Your task to perform on an android device: Clear the cart on walmart. Image 0: 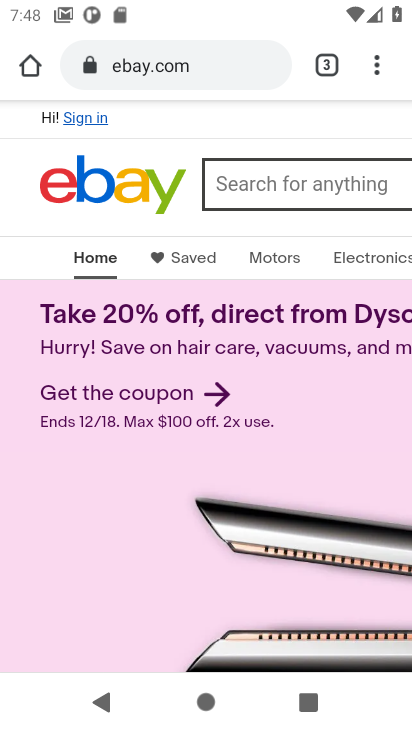
Step 0: click (161, 84)
Your task to perform on an android device: Clear the cart on walmart. Image 1: 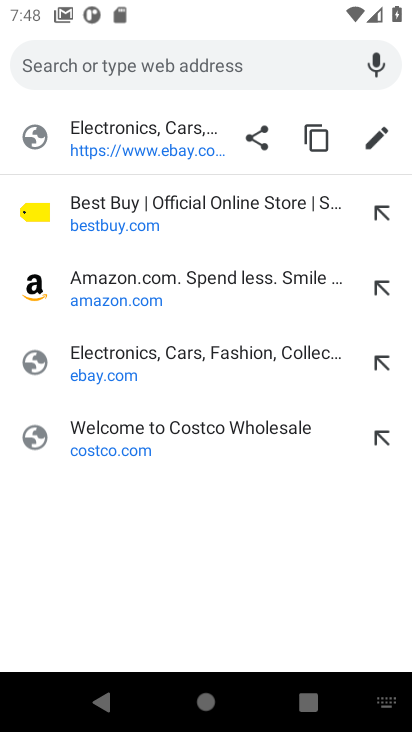
Step 1: type "walmart"
Your task to perform on an android device: Clear the cart on walmart. Image 2: 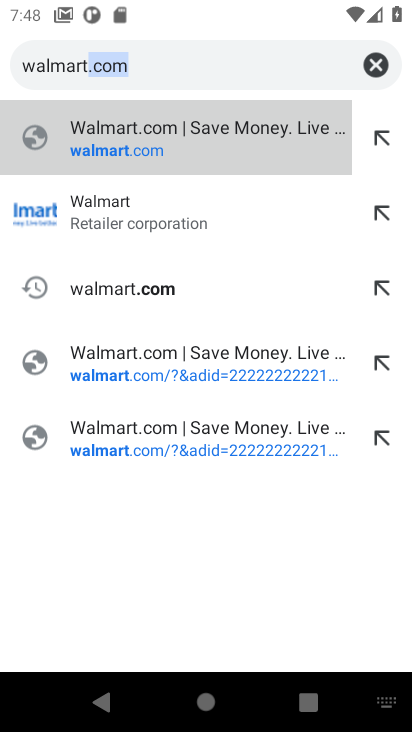
Step 2: click (130, 157)
Your task to perform on an android device: Clear the cart on walmart. Image 3: 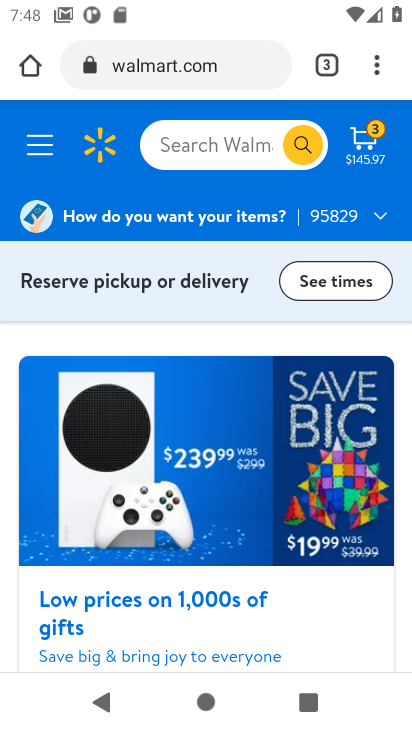
Step 3: click (194, 144)
Your task to perform on an android device: Clear the cart on walmart. Image 4: 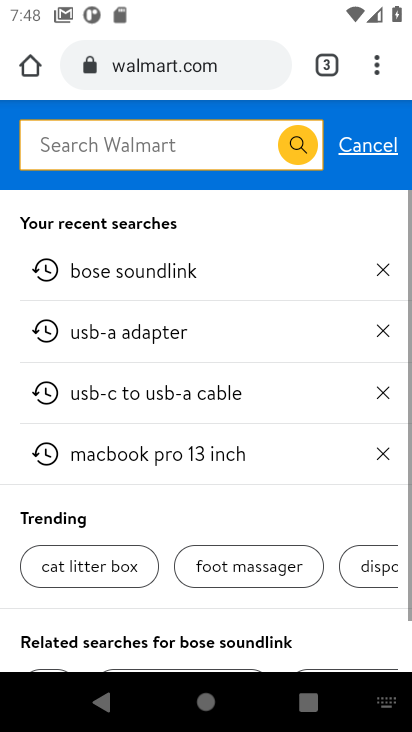
Step 4: click (367, 157)
Your task to perform on an android device: Clear the cart on walmart. Image 5: 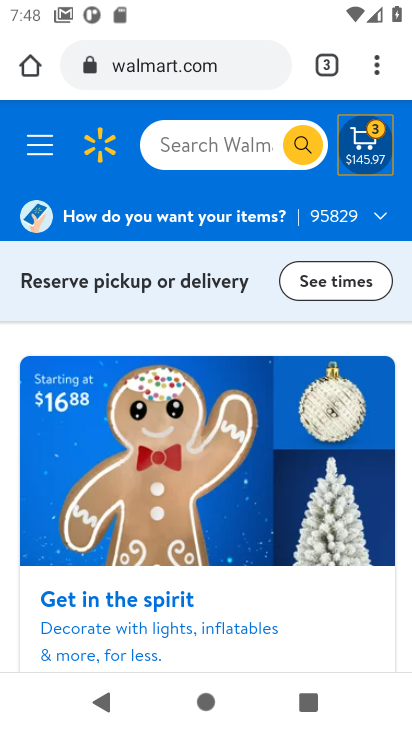
Step 5: click (365, 128)
Your task to perform on an android device: Clear the cart on walmart. Image 6: 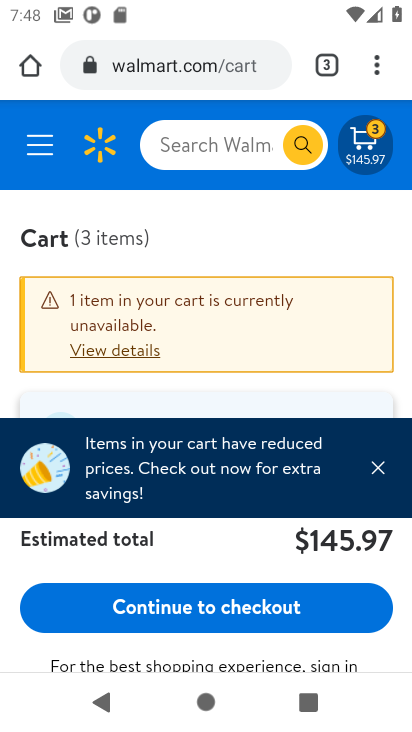
Step 6: click (372, 469)
Your task to perform on an android device: Clear the cart on walmart. Image 7: 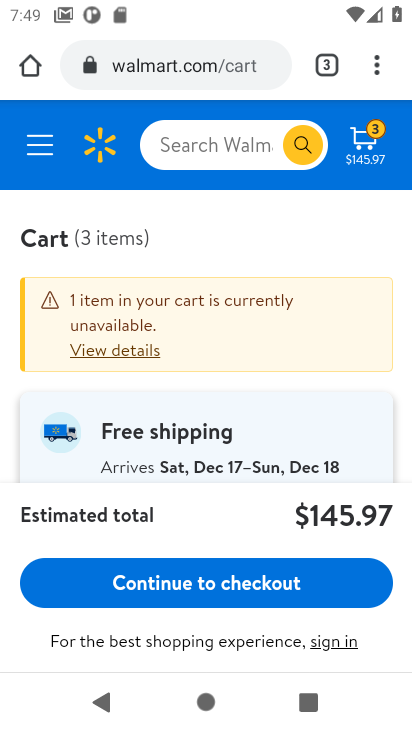
Step 7: drag from (174, 417) to (182, 207)
Your task to perform on an android device: Clear the cart on walmart. Image 8: 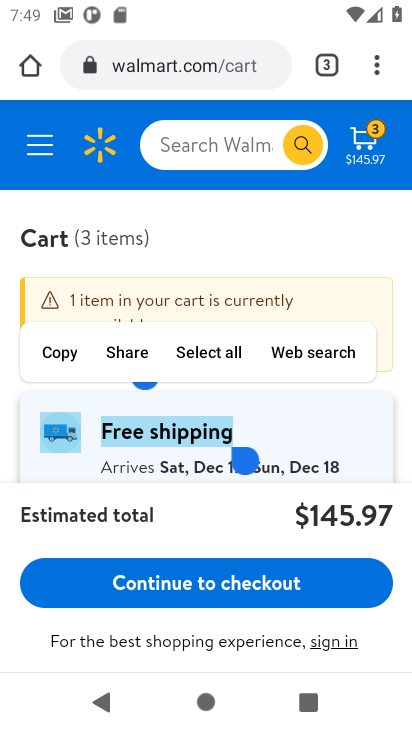
Step 8: click (364, 435)
Your task to perform on an android device: Clear the cart on walmart. Image 9: 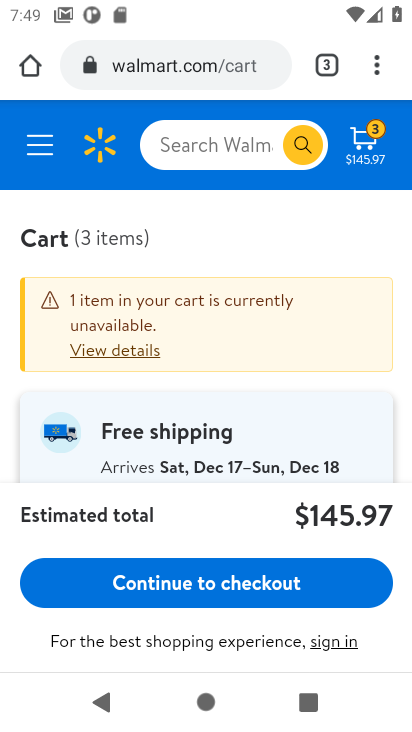
Step 9: drag from (386, 464) to (361, 252)
Your task to perform on an android device: Clear the cart on walmart. Image 10: 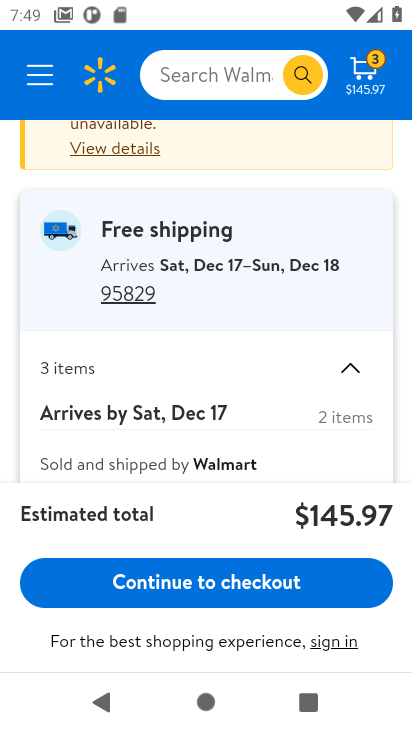
Step 10: drag from (277, 350) to (282, 242)
Your task to perform on an android device: Clear the cart on walmart. Image 11: 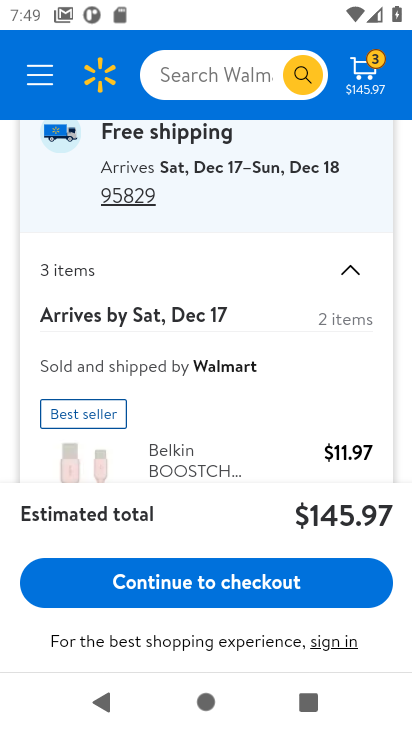
Step 11: drag from (235, 387) to (283, 143)
Your task to perform on an android device: Clear the cart on walmart. Image 12: 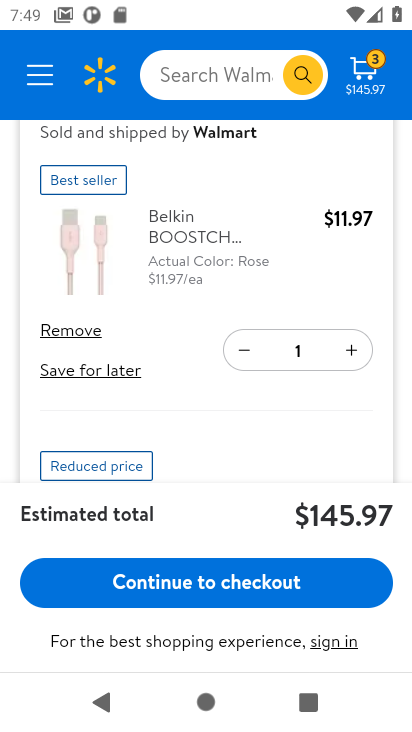
Step 12: click (71, 331)
Your task to perform on an android device: Clear the cart on walmart. Image 13: 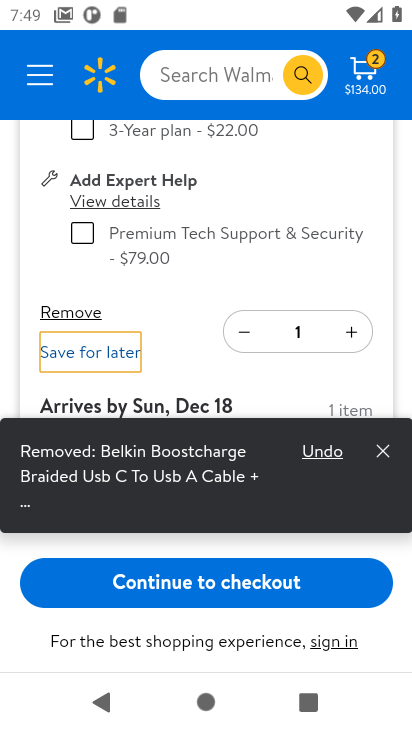
Step 13: click (67, 318)
Your task to perform on an android device: Clear the cart on walmart. Image 14: 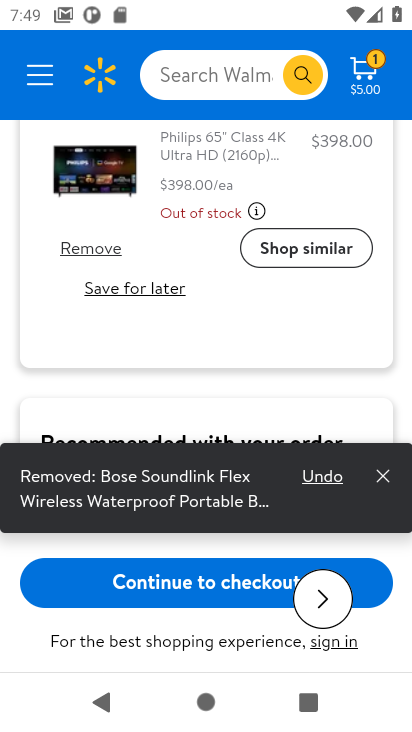
Step 14: click (74, 254)
Your task to perform on an android device: Clear the cart on walmart. Image 15: 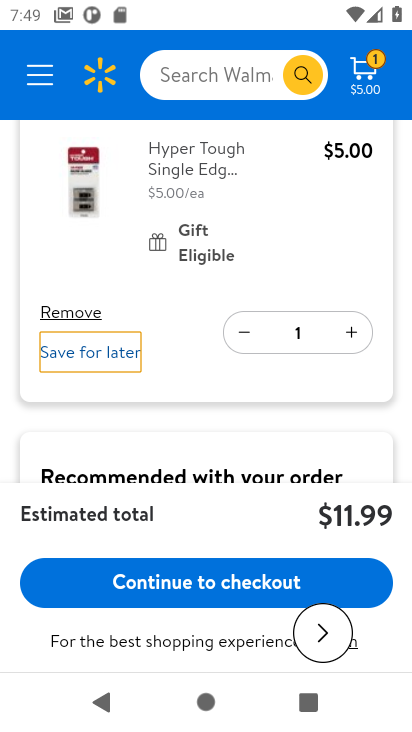
Step 15: click (62, 310)
Your task to perform on an android device: Clear the cart on walmart. Image 16: 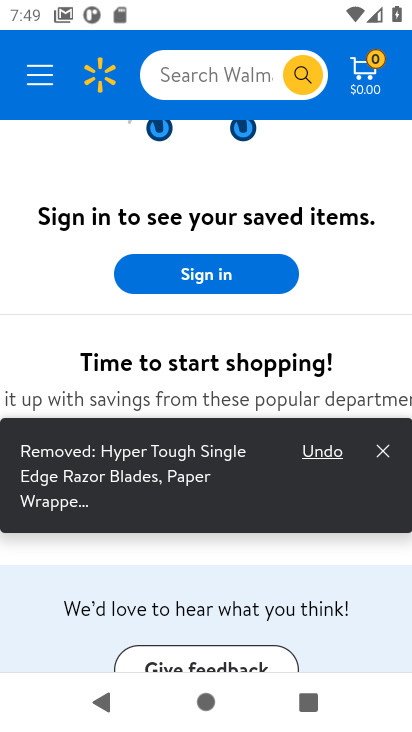
Step 16: task complete